Your task to perform on an android device: turn vacation reply on in the gmail app Image 0: 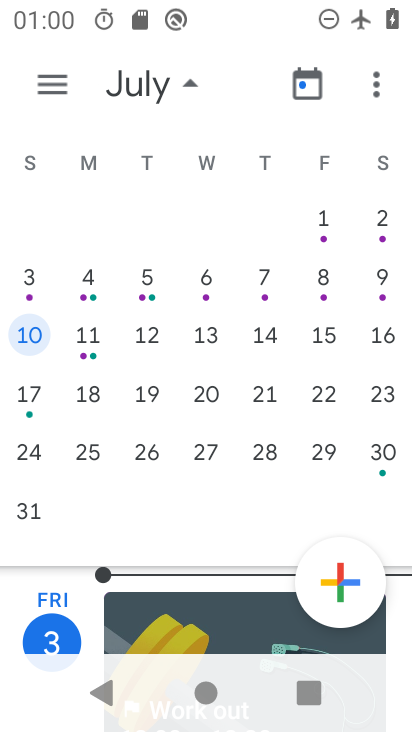
Step 0: press home button
Your task to perform on an android device: turn vacation reply on in the gmail app Image 1: 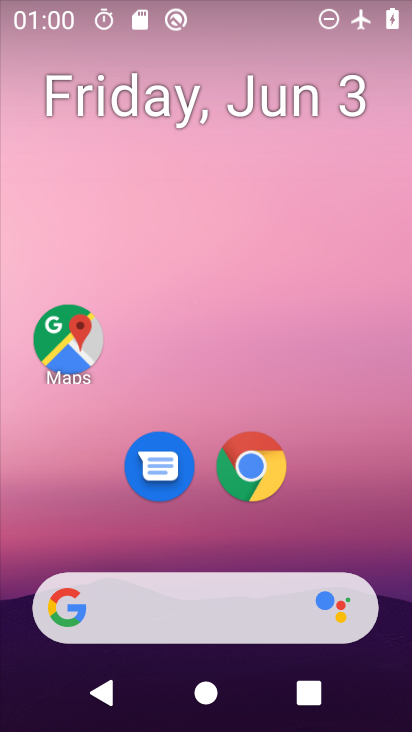
Step 1: drag from (227, 555) to (213, 181)
Your task to perform on an android device: turn vacation reply on in the gmail app Image 2: 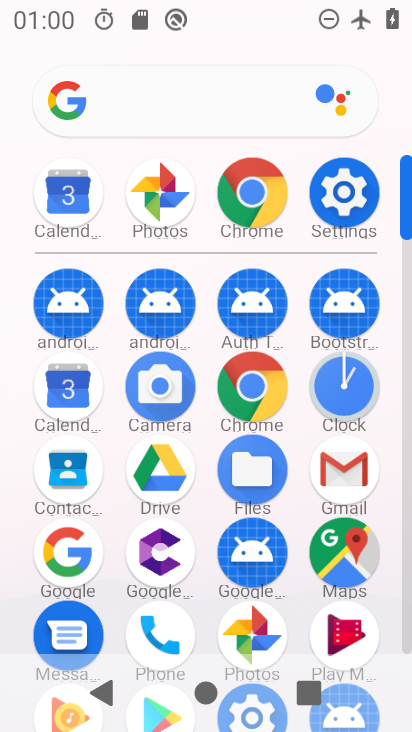
Step 2: click (348, 476)
Your task to perform on an android device: turn vacation reply on in the gmail app Image 3: 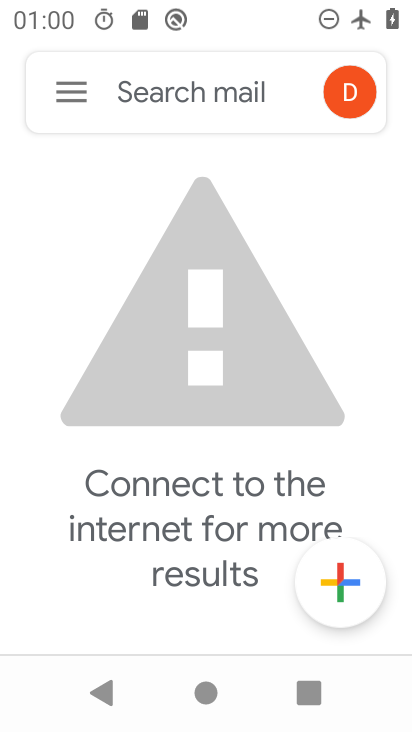
Step 3: click (79, 100)
Your task to perform on an android device: turn vacation reply on in the gmail app Image 4: 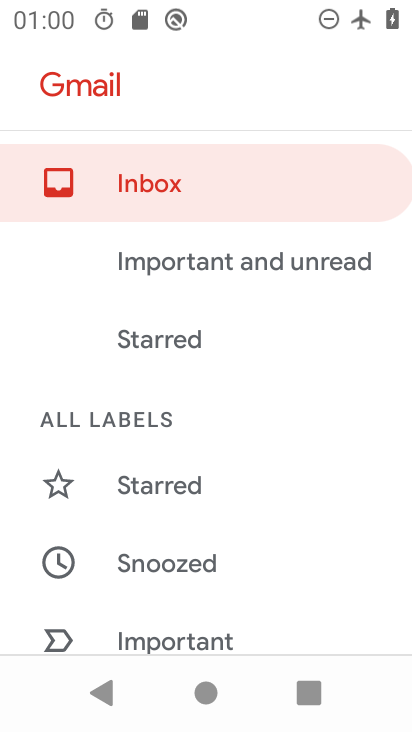
Step 4: drag from (229, 540) to (226, 296)
Your task to perform on an android device: turn vacation reply on in the gmail app Image 5: 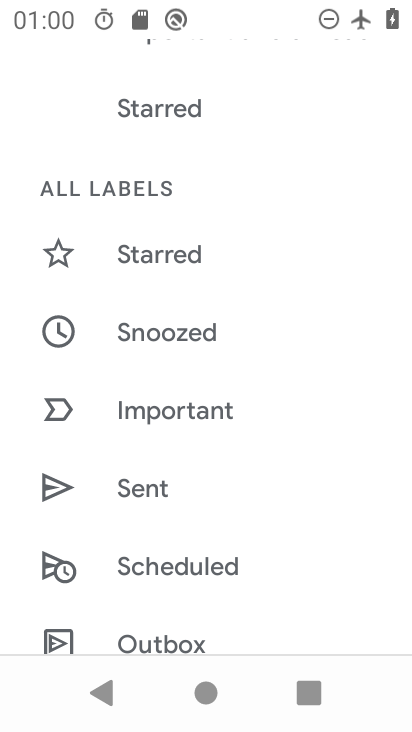
Step 5: drag from (222, 495) to (222, 229)
Your task to perform on an android device: turn vacation reply on in the gmail app Image 6: 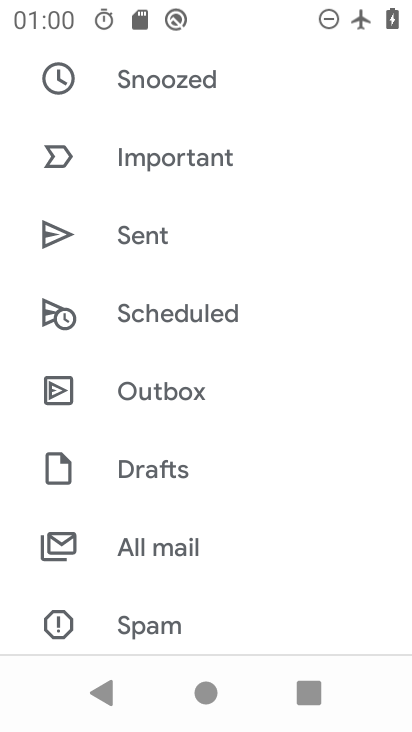
Step 6: drag from (221, 615) to (222, 281)
Your task to perform on an android device: turn vacation reply on in the gmail app Image 7: 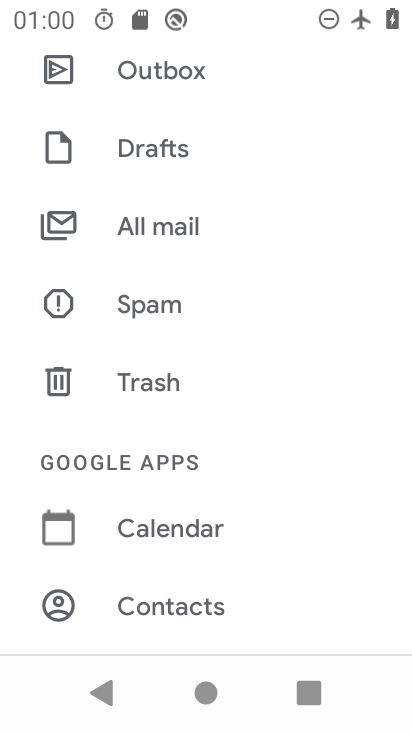
Step 7: drag from (217, 569) to (235, 304)
Your task to perform on an android device: turn vacation reply on in the gmail app Image 8: 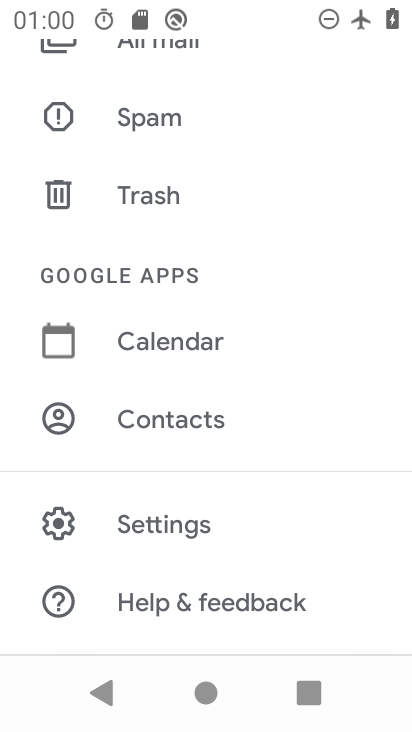
Step 8: click (207, 515)
Your task to perform on an android device: turn vacation reply on in the gmail app Image 9: 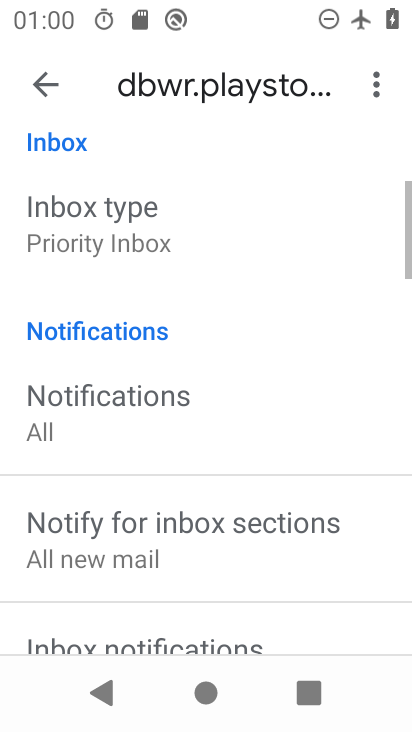
Step 9: drag from (222, 499) to (222, 197)
Your task to perform on an android device: turn vacation reply on in the gmail app Image 10: 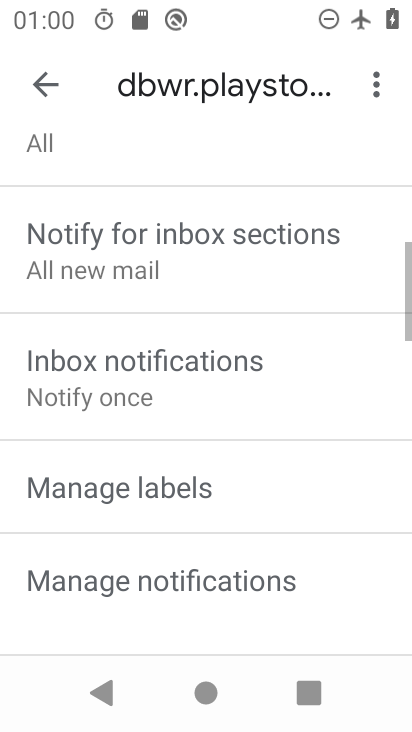
Step 10: drag from (227, 479) to (246, 211)
Your task to perform on an android device: turn vacation reply on in the gmail app Image 11: 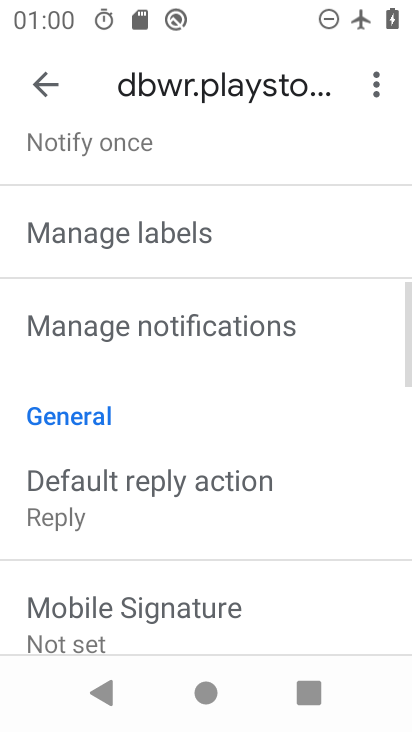
Step 11: drag from (248, 501) to (271, 298)
Your task to perform on an android device: turn vacation reply on in the gmail app Image 12: 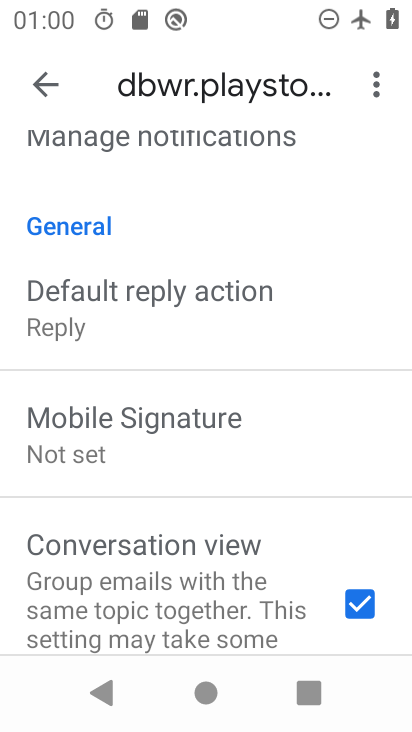
Step 12: drag from (247, 525) to (291, 238)
Your task to perform on an android device: turn vacation reply on in the gmail app Image 13: 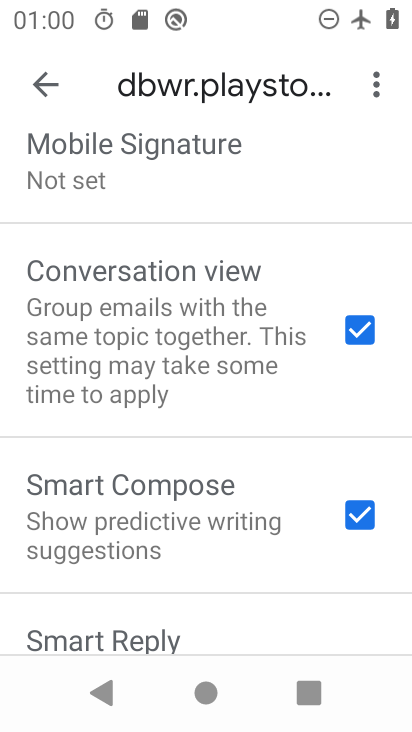
Step 13: drag from (203, 550) to (242, 303)
Your task to perform on an android device: turn vacation reply on in the gmail app Image 14: 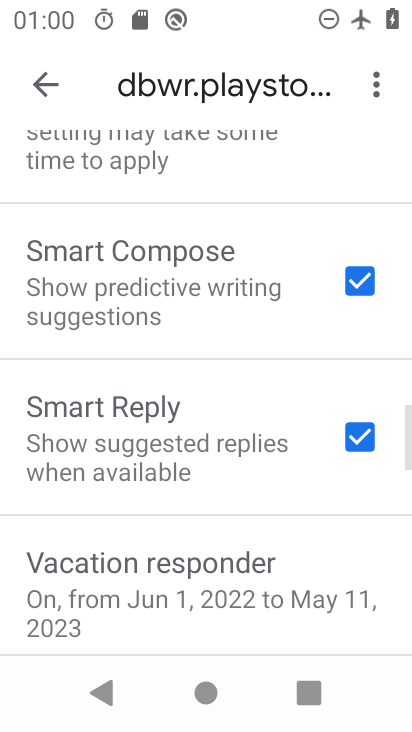
Step 14: click (233, 570)
Your task to perform on an android device: turn vacation reply on in the gmail app Image 15: 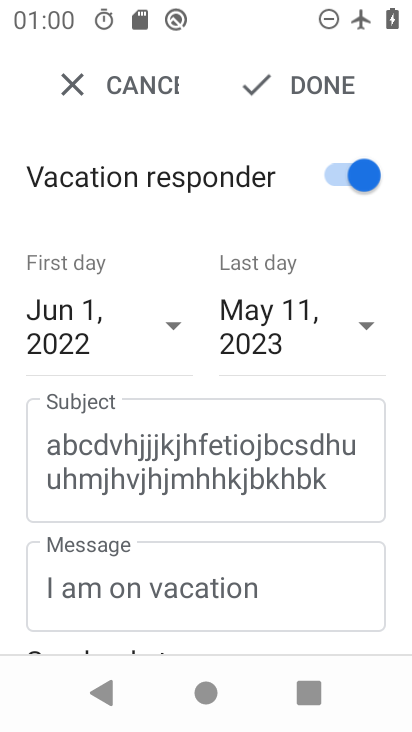
Step 15: task complete